Your task to perform on an android device: Open Chrome and go to settings Image 0: 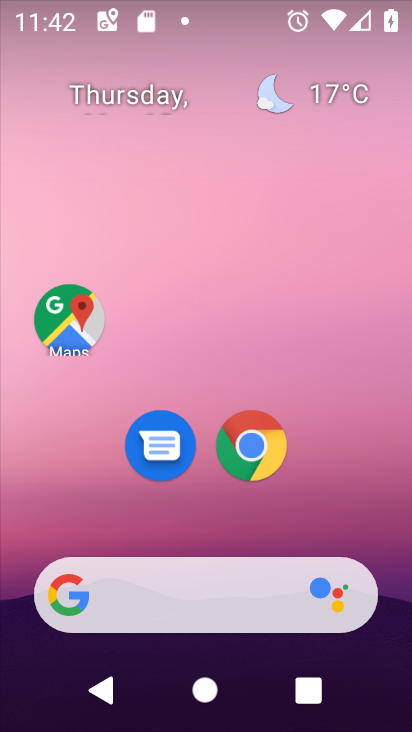
Step 0: drag from (224, 541) to (224, 128)
Your task to perform on an android device: Open Chrome and go to settings Image 1: 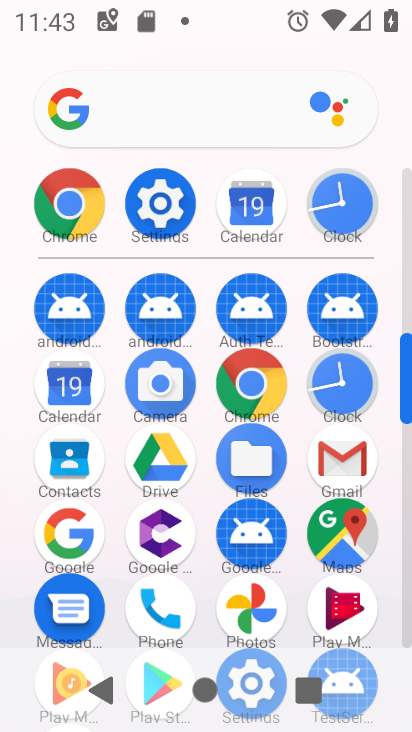
Step 1: click (251, 393)
Your task to perform on an android device: Open Chrome and go to settings Image 2: 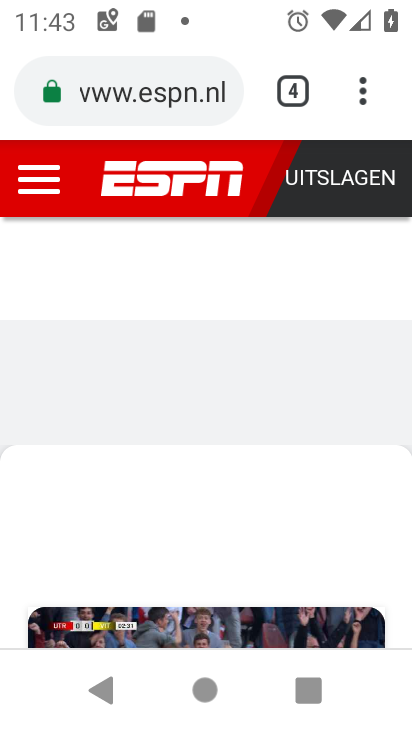
Step 2: click (364, 93)
Your task to perform on an android device: Open Chrome and go to settings Image 3: 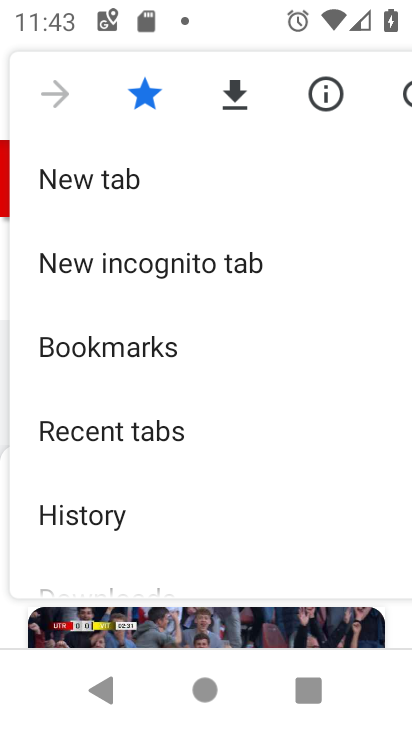
Step 3: drag from (223, 479) to (246, 139)
Your task to perform on an android device: Open Chrome and go to settings Image 4: 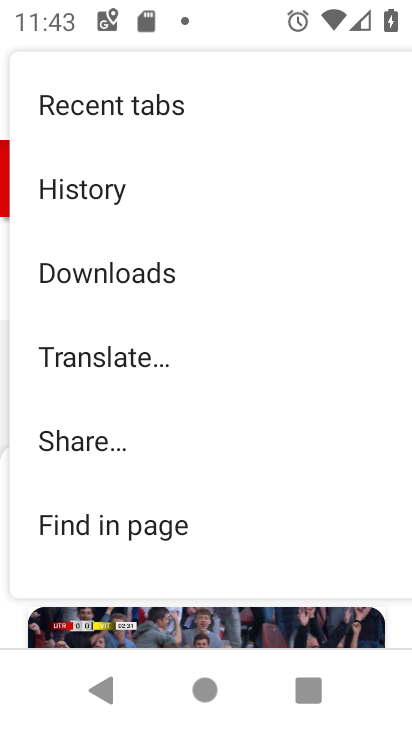
Step 4: drag from (237, 446) to (252, 115)
Your task to perform on an android device: Open Chrome and go to settings Image 5: 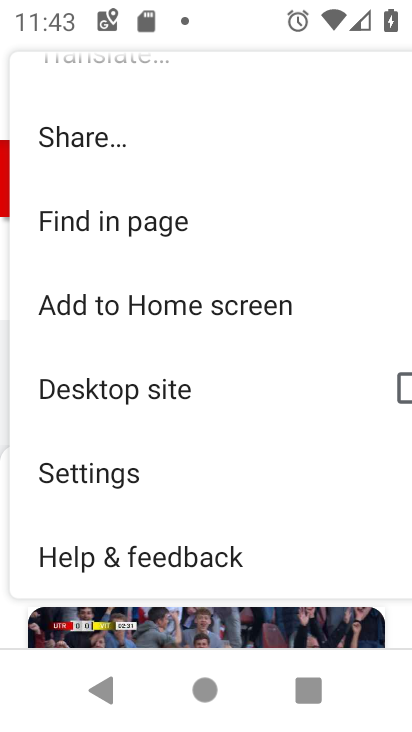
Step 5: click (153, 474)
Your task to perform on an android device: Open Chrome and go to settings Image 6: 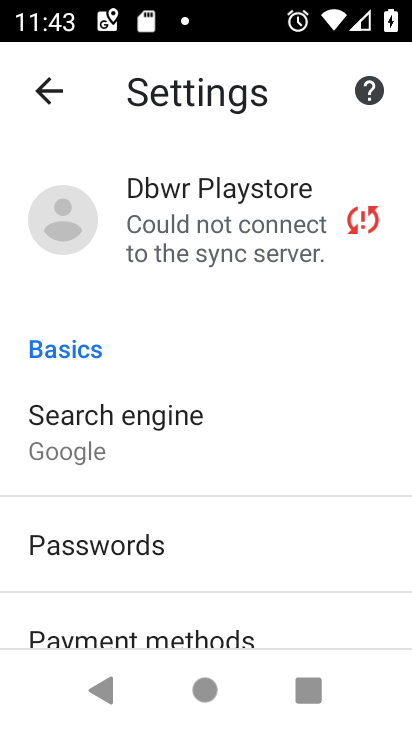
Step 6: task complete